Your task to perform on an android device: Open calendar and show me the third week of next month Image 0: 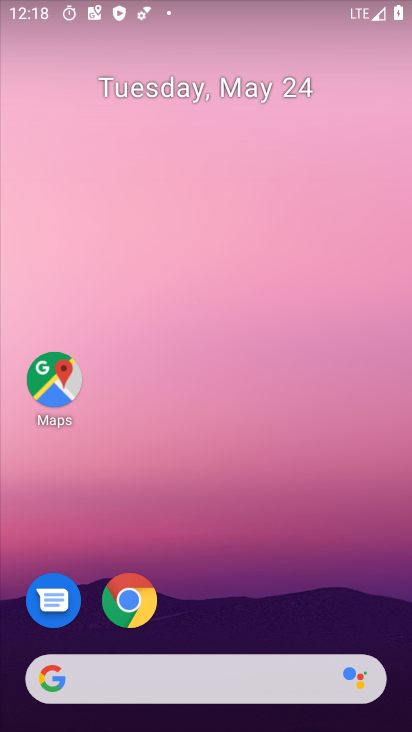
Step 0: drag from (290, 546) to (212, 0)
Your task to perform on an android device: Open calendar and show me the third week of next month Image 1: 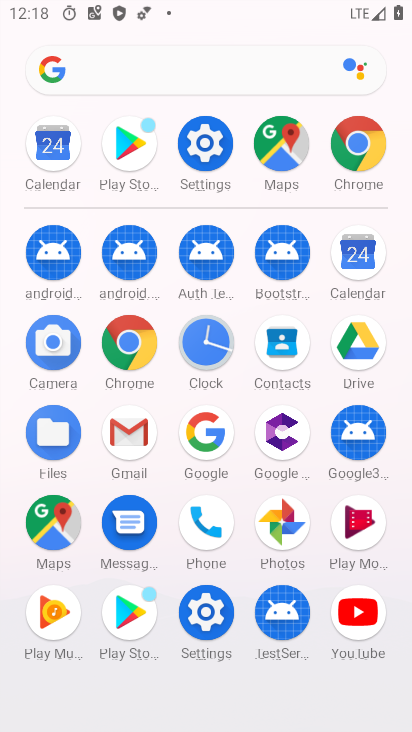
Step 1: click (355, 254)
Your task to perform on an android device: Open calendar and show me the third week of next month Image 2: 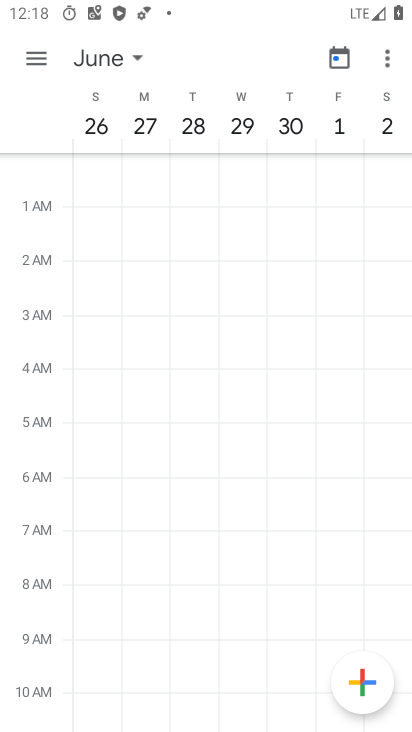
Step 2: click (91, 63)
Your task to perform on an android device: Open calendar and show me the third week of next month Image 3: 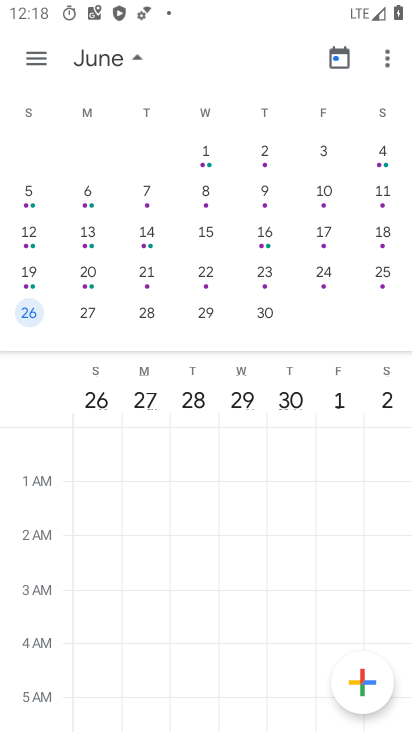
Step 3: click (22, 275)
Your task to perform on an android device: Open calendar and show me the third week of next month Image 4: 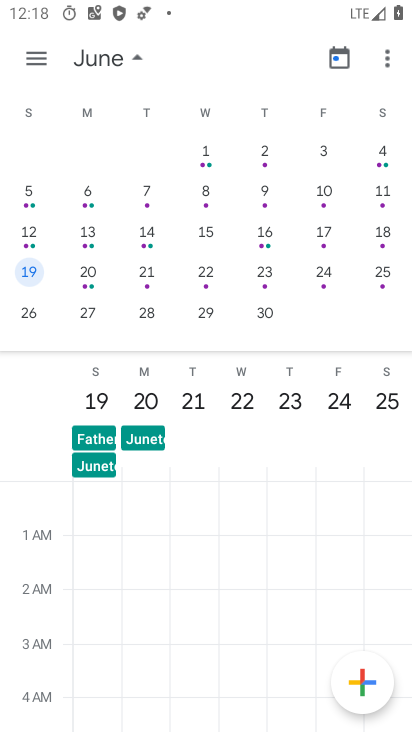
Step 4: task complete